Your task to perform on an android device: turn off sleep mode Image 0: 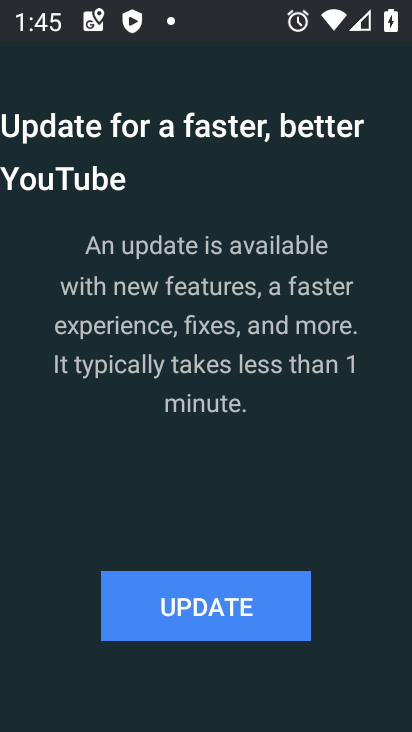
Step 0: press back button
Your task to perform on an android device: turn off sleep mode Image 1: 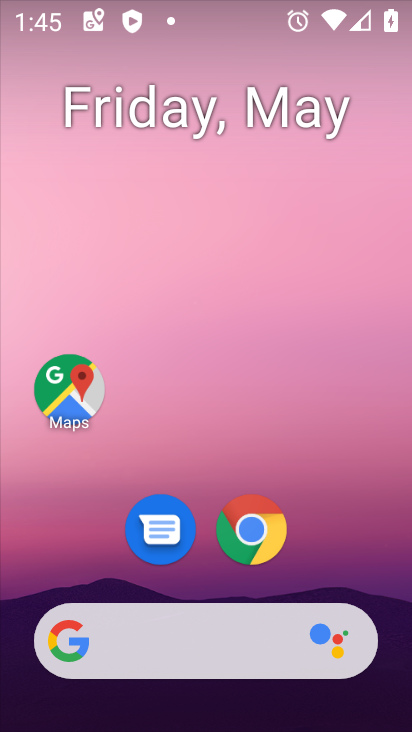
Step 1: drag from (395, 678) to (364, 175)
Your task to perform on an android device: turn off sleep mode Image 2: 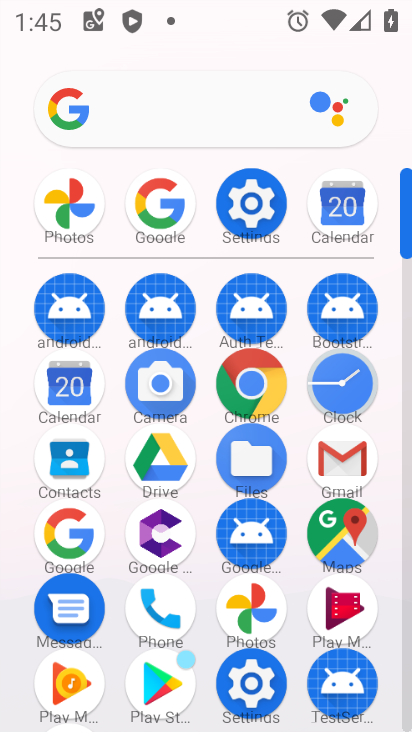
Step 2: click (257, 684)
Your task to perform on an android device: turn off sleep mode Image 3: 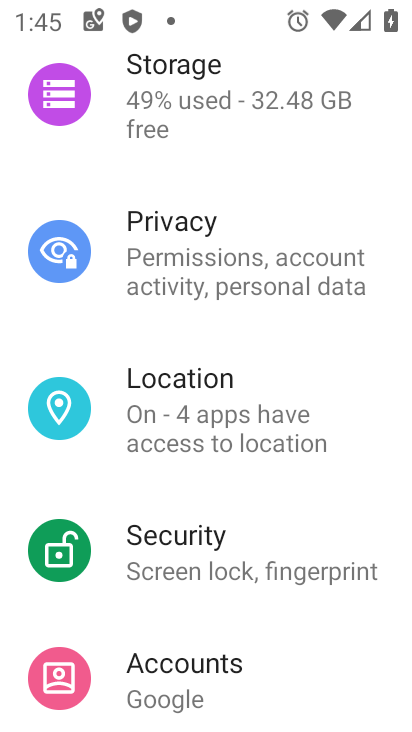
Step 3: drag from (278, 194) to (311, 550)
Your task to perform on an android device: turn off sleep mode Image 4: 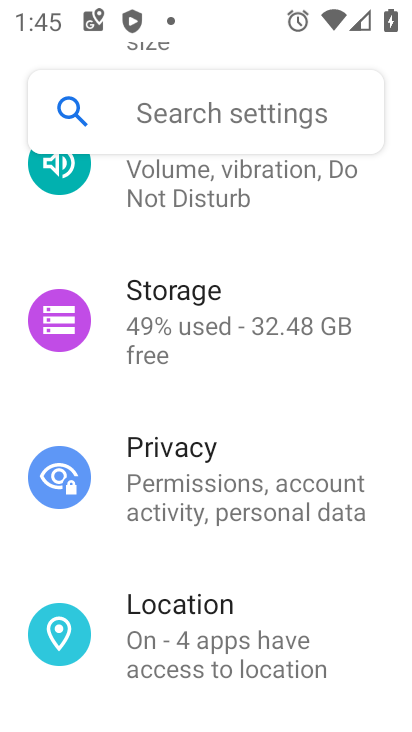
Step 4: drag from (275, 265) to (304, 570)
Your task to perform on an android device: turn off sleep mode Image 5: 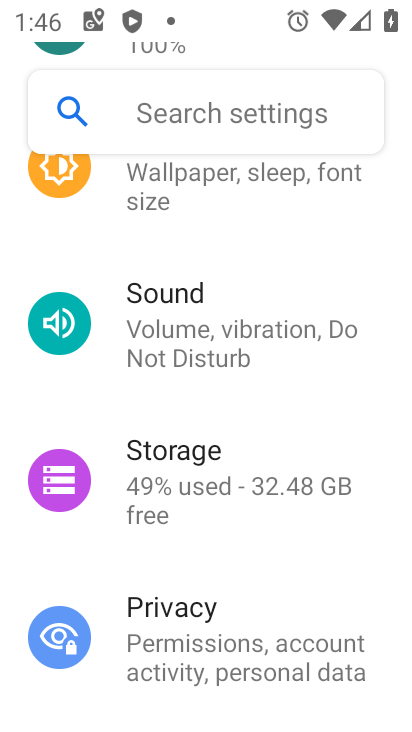
Step 5: click (149, 173)
Your task to perform on an android device: turn off sleep mode Image 6: 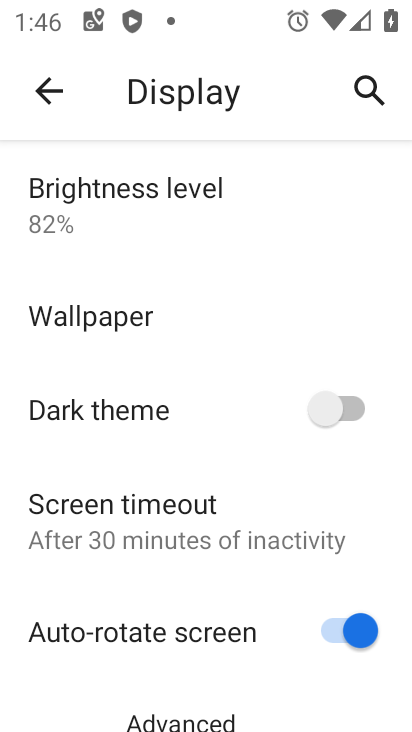
Step 6: click (129, 517)
Your task to perform on an android device: turn off sleep mode Image 7: 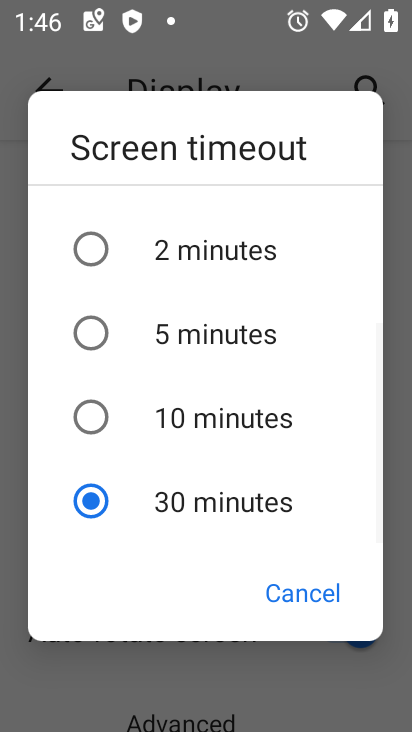
Step 7: task complete